Your task to perform on an android device: see sites visited before in the chrome app Image 0: 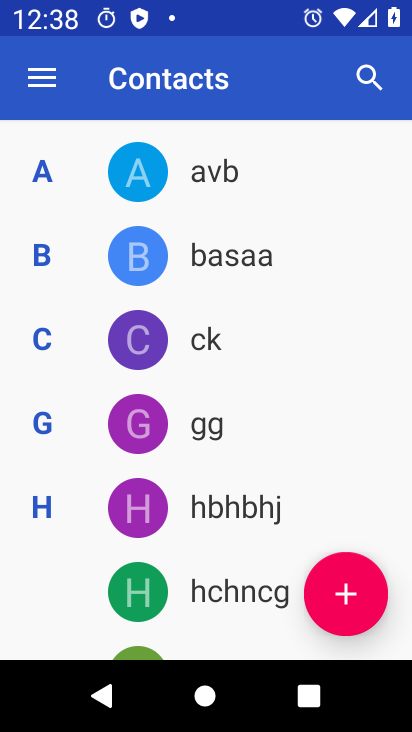
Step 0: press home button
Your task to perform on an android device: see sites visited before in the chrome app Image 1: 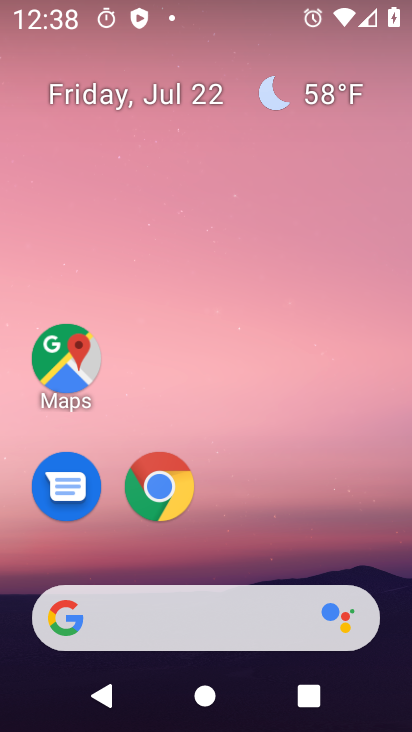
Step 1: drag from (325, 527) to (353, 96)
Your task to perform on an android device: see sites visited before in the chrome app Image 2: 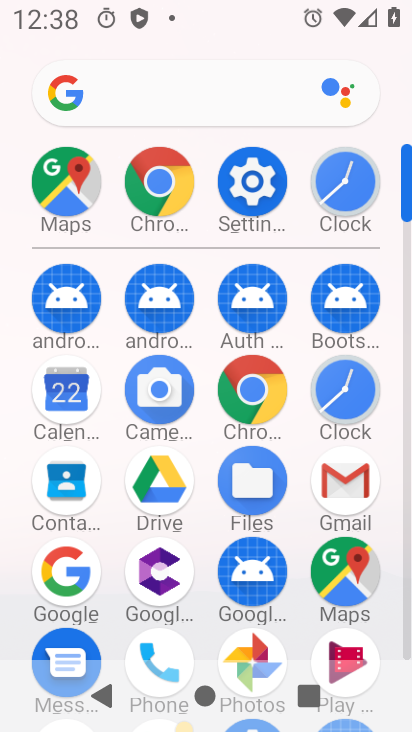
Step 2: click (257, 381)
Your task to perform on an android device: see sites visited before in the chrome app Image 3: 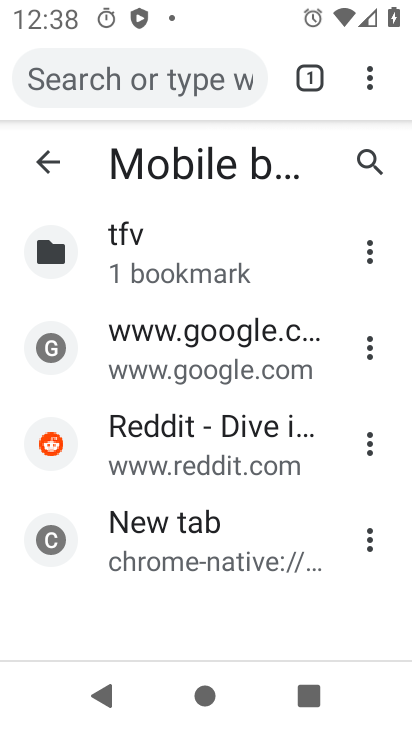
Step 3: click (370, 86)
Your task to perform on an android device: see sites visited before in the chrome app Image 4: 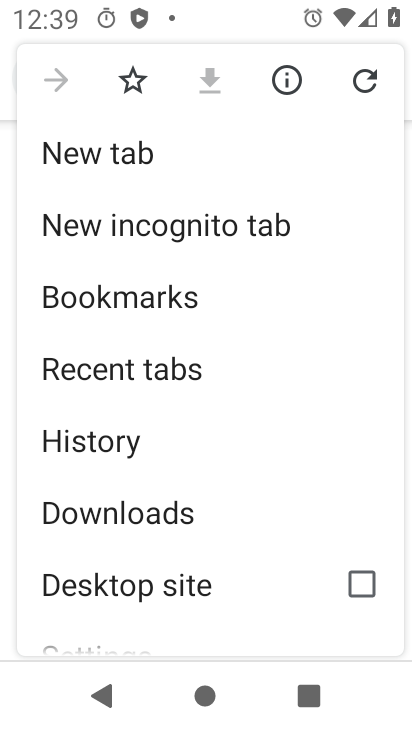
Step 4: drag from (333, 349) to (343, 301)
Your task to perform on an android device: see sites visited before in the chrome app Image 5: 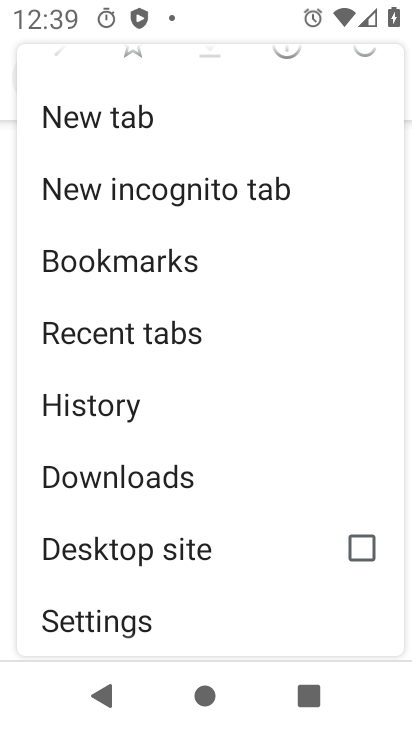
Step 5: drag from (338, 353) to (342, 289)
Your task to perform on an android device: see sites visited before in the chrome app Image 6: 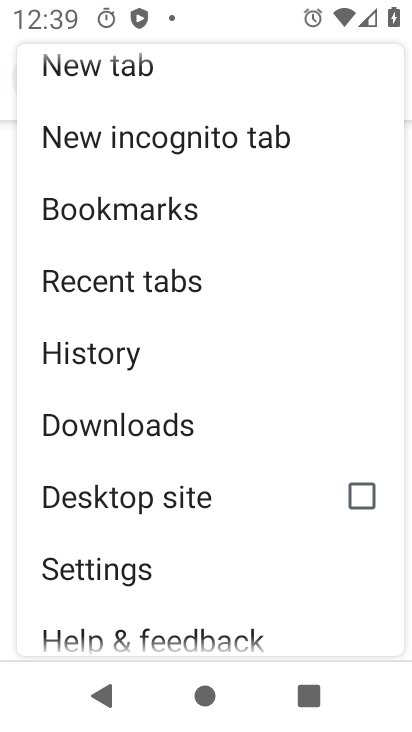
Step 6: drag from (327, 347) to (331, 254)
Your task to perform on an android device: see sites visited before in the chrome app Image 7: 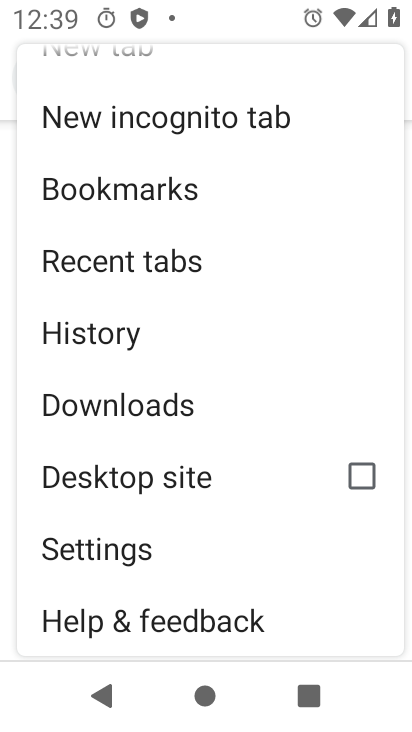
Step 7: drag from (298, 344) to (308, 280)
Your task to perform on an android device: see sites visited before in the chrome app Image 8: 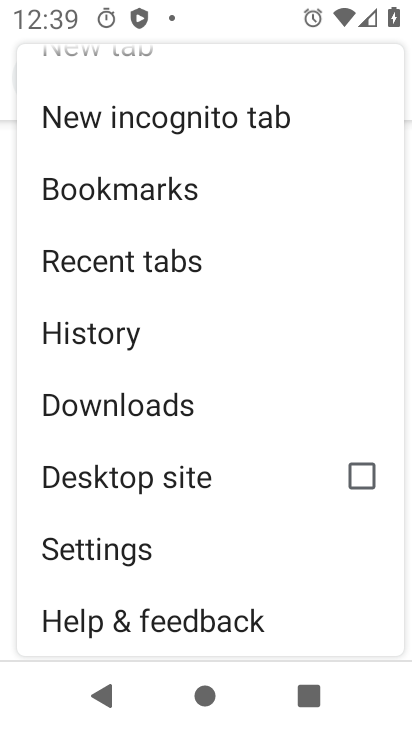
Step 8: click (295, 341)
Your task to perform on an android device: see sites visited before in the chrome app Image 9: 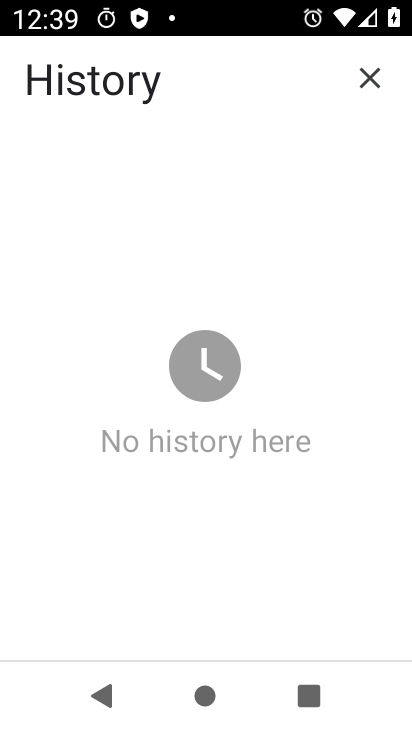
Step 9: task complete